Your task to perform on an android device: uninstall "Cash App" Image 0: 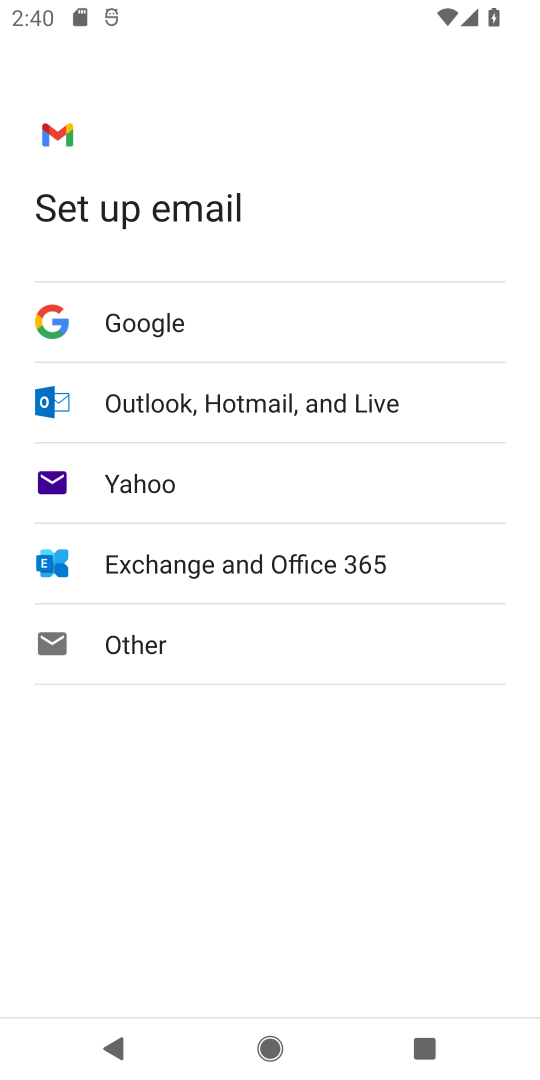
Step 0: press home button
Your task to perform on an android device: uninstall "Cash App" Image 1: 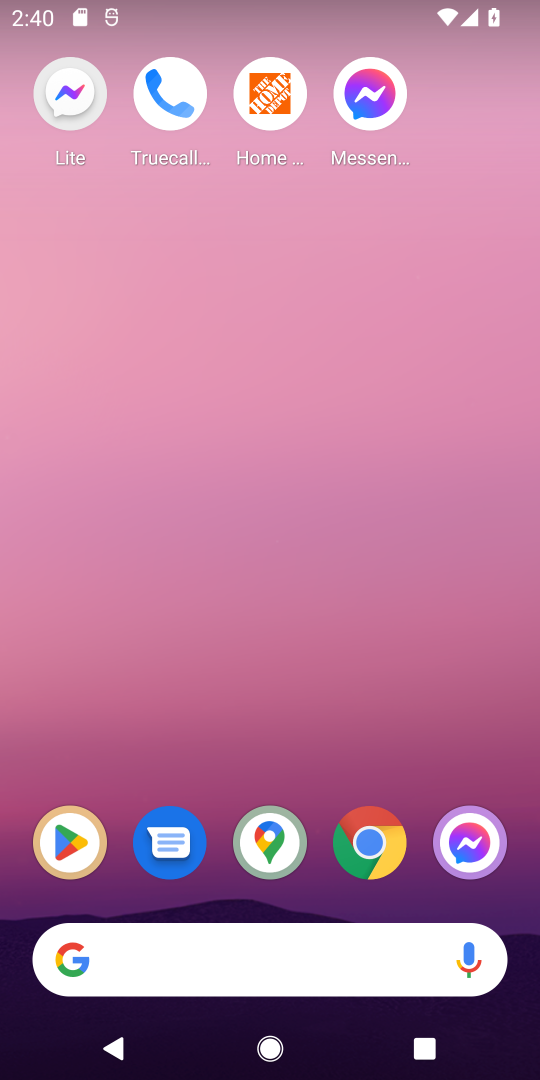
Step 1: click (84, 830)
Your task to perform on an android device: uninstall "Cash App" Image 2: 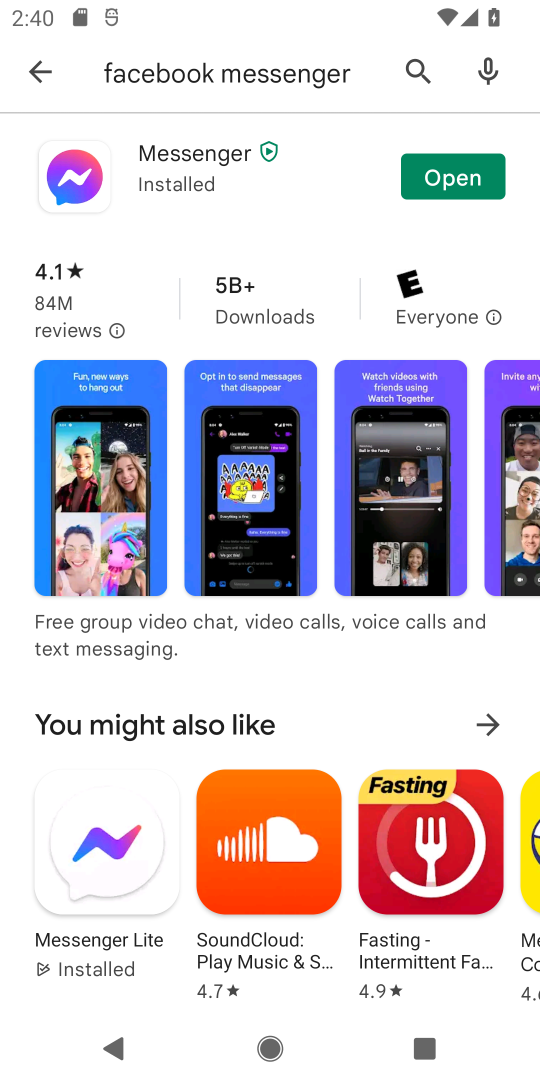
Step 2: click (243, 74)
Your task to perform on an android device: uninstall "Cash App" Image 3: 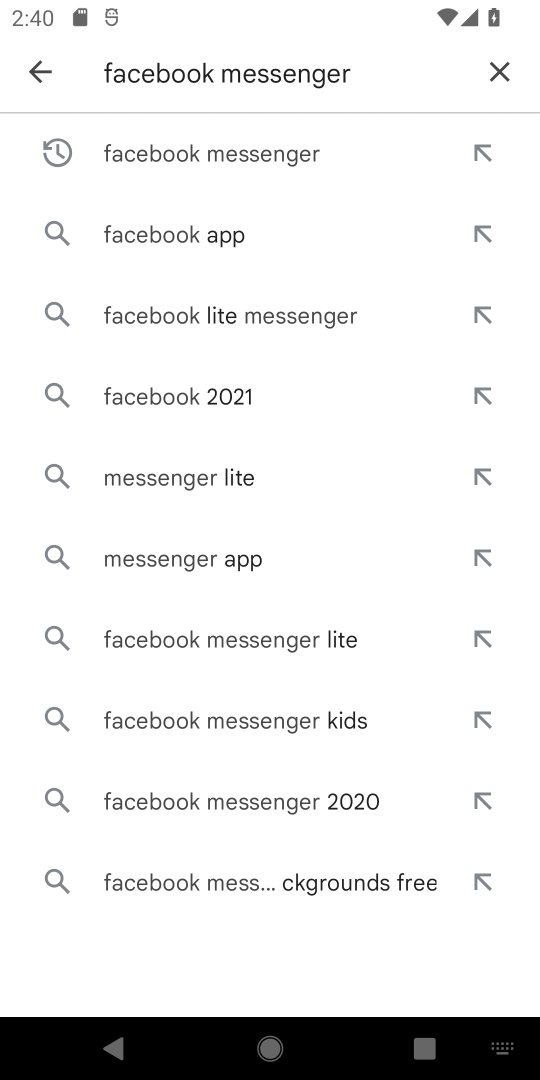
Step 3: click (501, 74)
Your task to perform on an android device: uninstall "Cash App" Image 4: 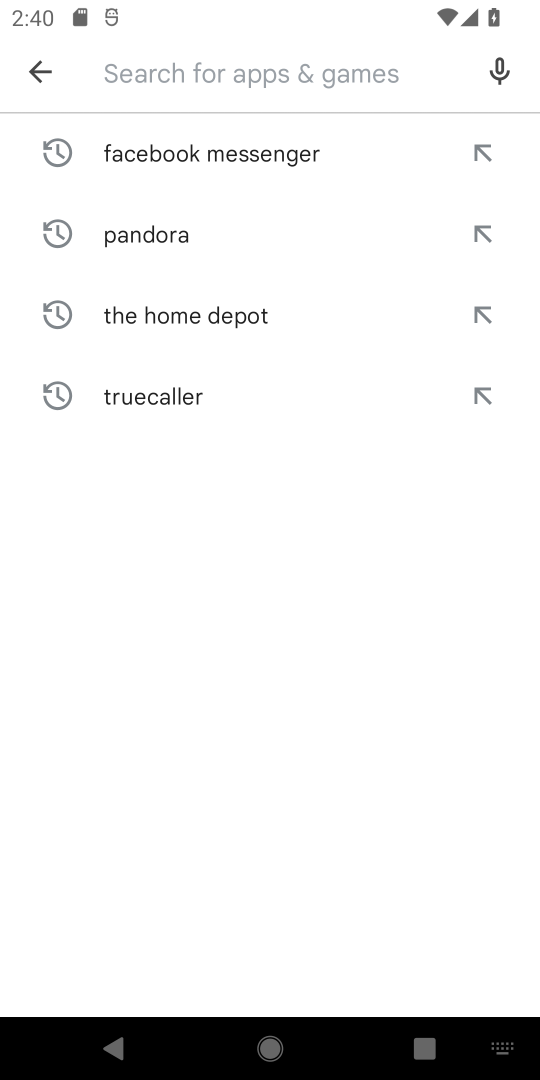
Step 4: type "Cash App"
Your task to perform on an android device: uninstall "Cash App" Image 5: 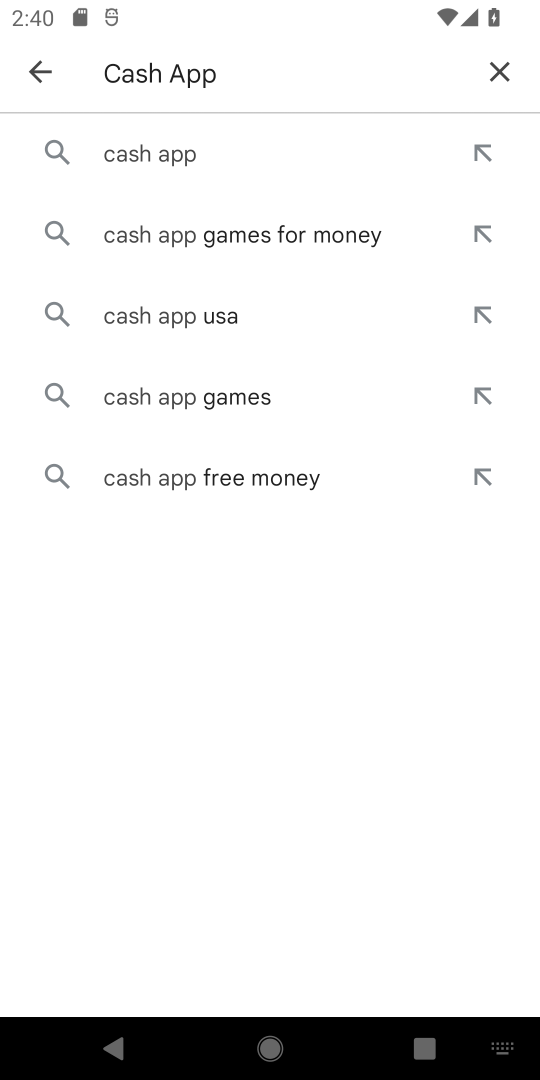
Step 5: click (201, 146)
Your task to perform on an android device: uninstall "Cash App" Image 6: 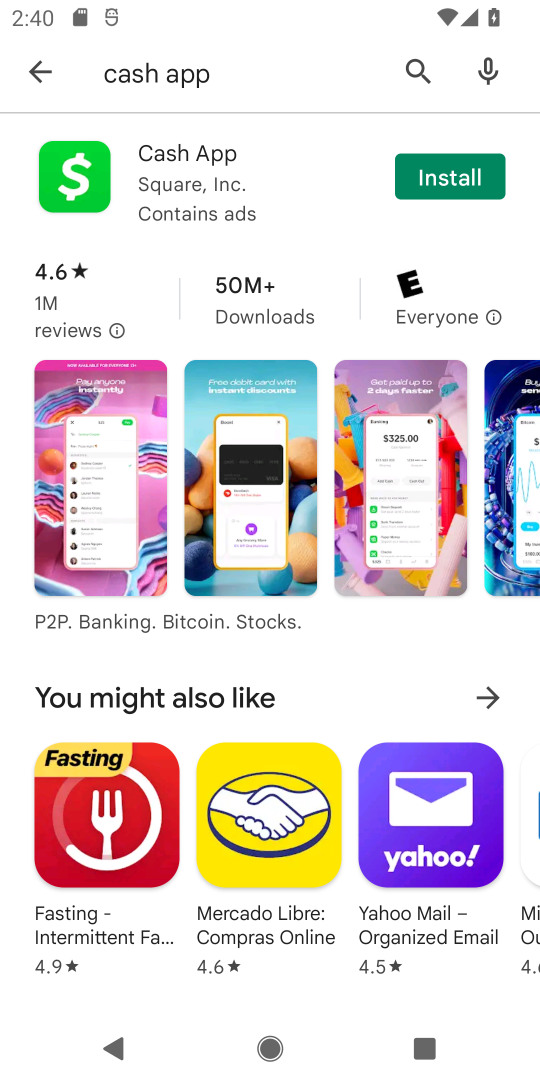
Step 6: task complete